Your task to perform on an android device: Show me popular videos on Youtube Image 0: 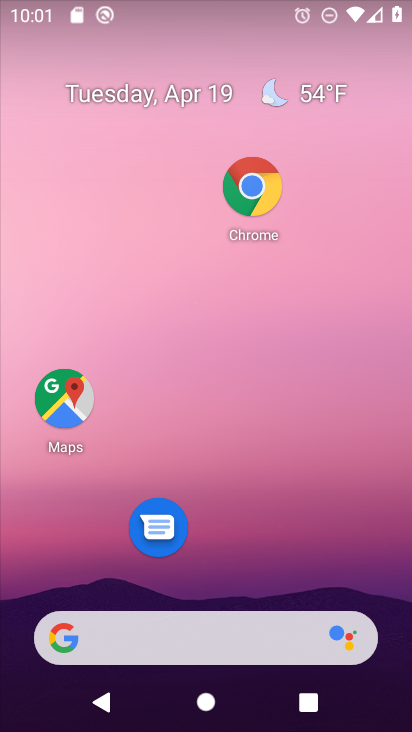
Step 0: click (354, 222)
Your task to perform on an android device: Show me popular videos on Youtube Image 1: 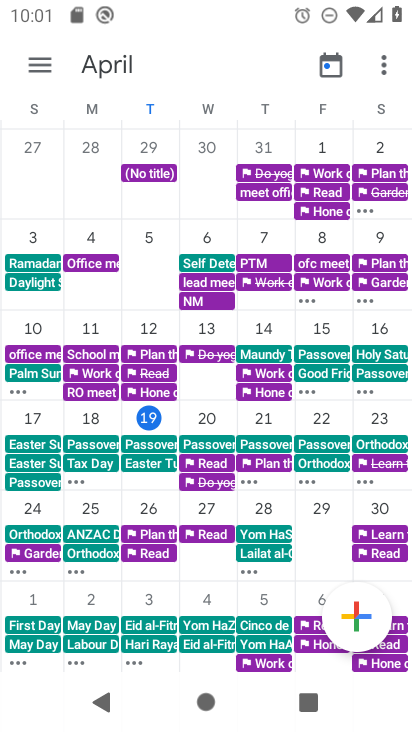
Step 1: drag from (284, 316) to (290, 220)
Your task to perform on an android device: Show me popular videos on Youtube Image 2: 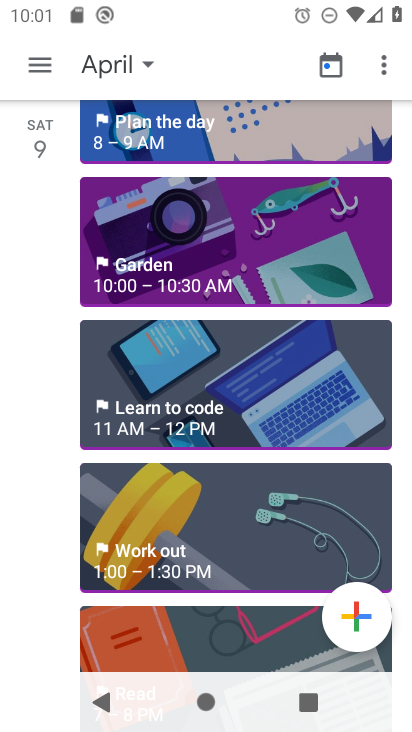
Step 2: press home button
Your task to perform on an android device: Show me popular videos on Youtube Image 3: 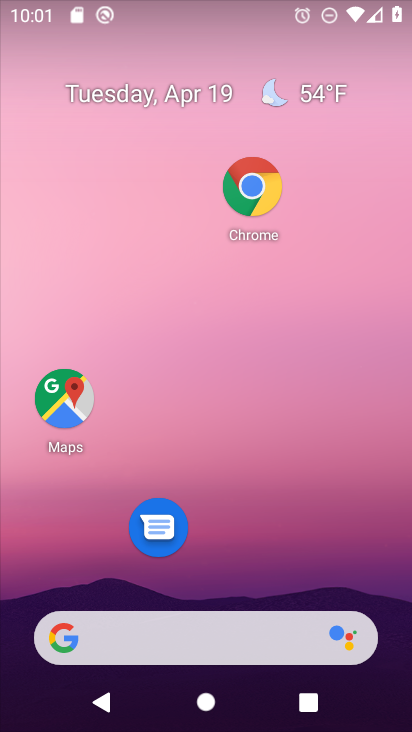
Step 3: drag from (210, 596) to (259, 302)
Your task to perform on an android device: Show me popular videos on Youtube Image 4: 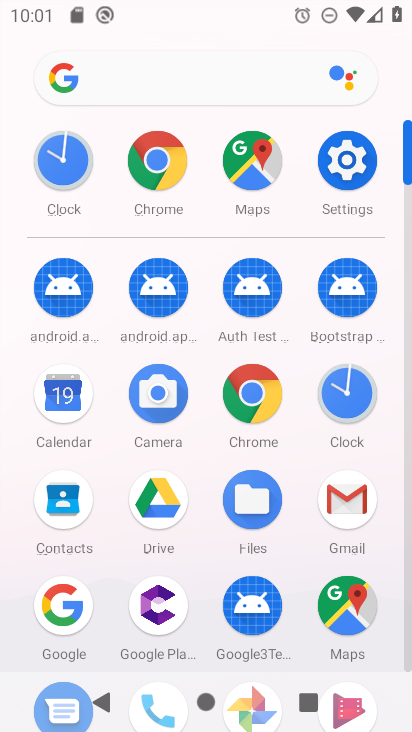
Step 4: drag from (284, 638) to (296, 193)
Your task to perform on an android device: Show me popular videos on Youtube Image 5: 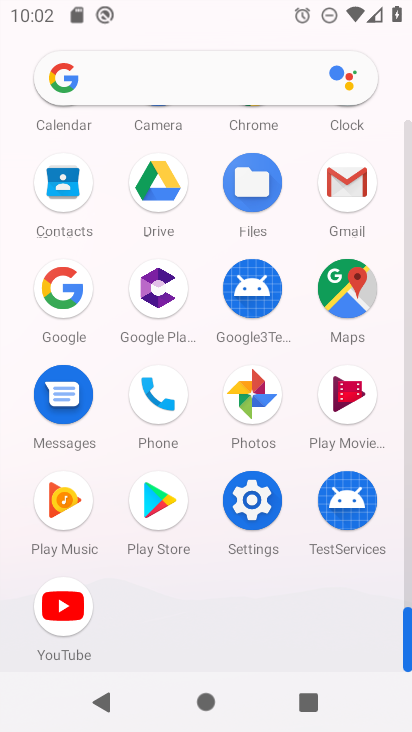
Step 5: click (74, 601)
Your task to perform on an android device: Show me popular videos on Youtube Image 6: 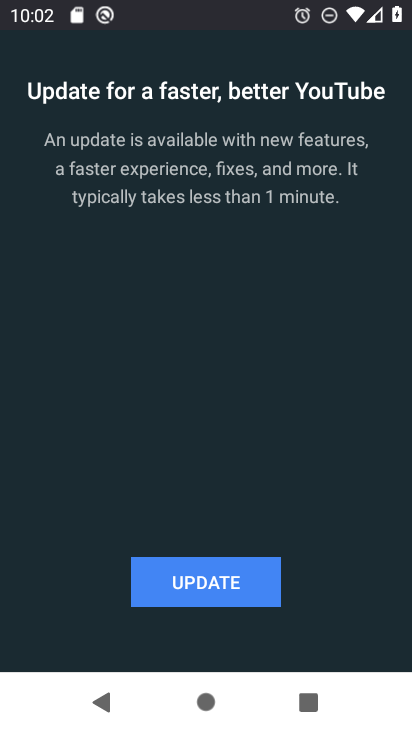
Step 6: task complete